Your task to perform on an android device: Search for vegetarian restaurants on Maps Image 0: 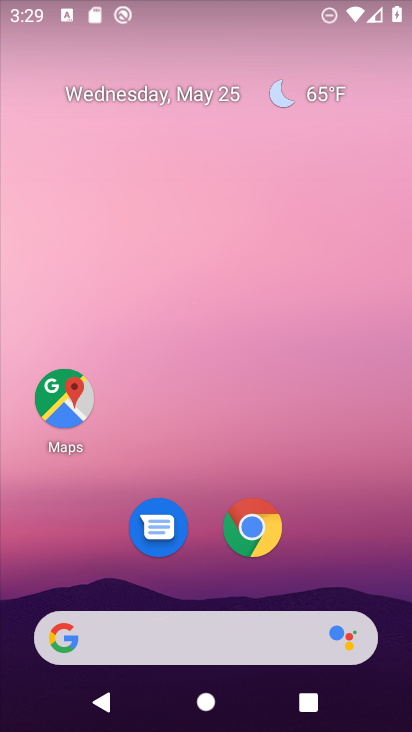
Step 0: drag from (344, 532) to (376, 10)
Your task to perform on an android device: Search for vegetarian restaurants on Maps Image 1: 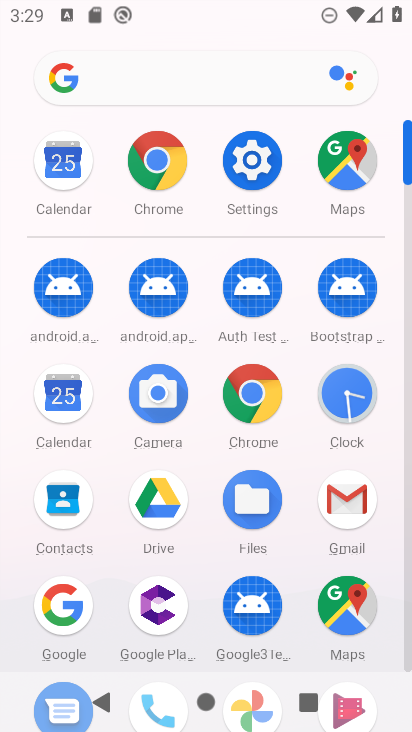
Step 1: click (367, 591)
Your task to perform on an android device: Search for vegetarian restaurants on Maps Image 2: 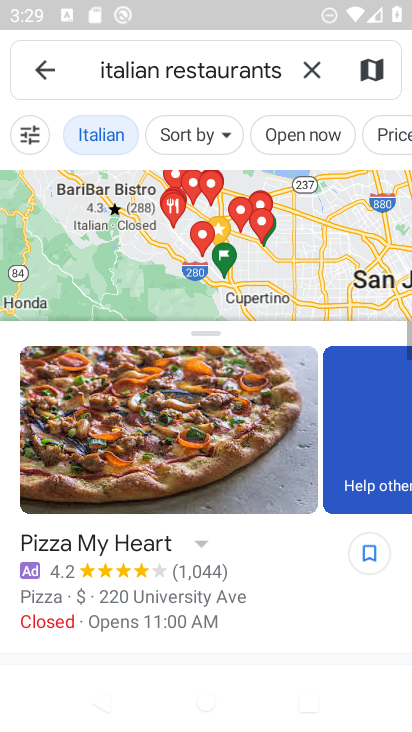
Step 2: click (312, 67)
Your task to perform on an android device: Search for vegetarian restaurants on Maps Image 3: 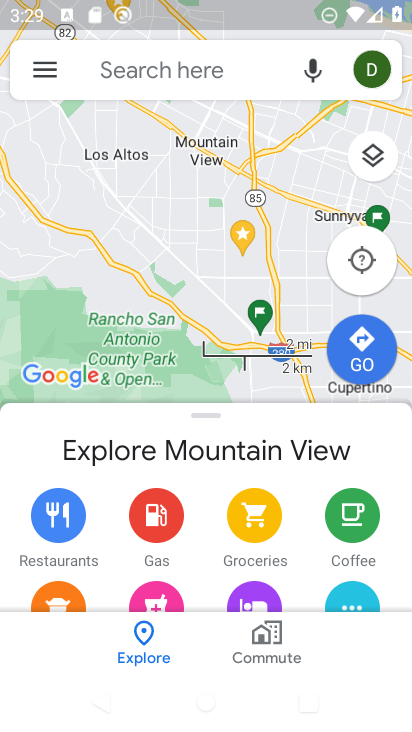
Step 3: click (264, 95)
Your task to perform on an android device: Search for vegetarian restaurants on Maps Image 4: 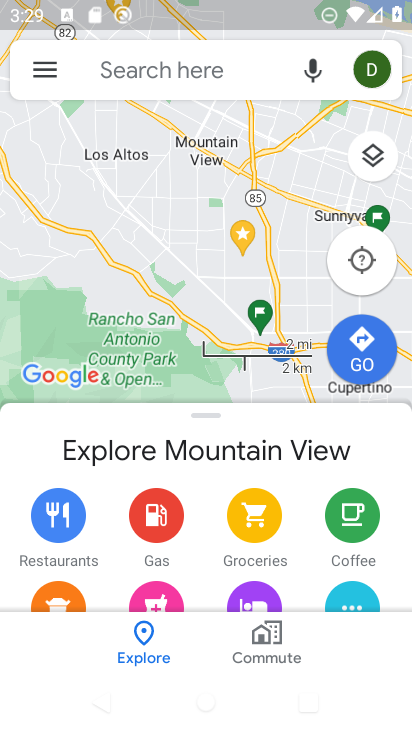
Step 4: click (264, 94)
Your task to perform on an android device: Search for vegetarian restaurants on Maps Image 5: 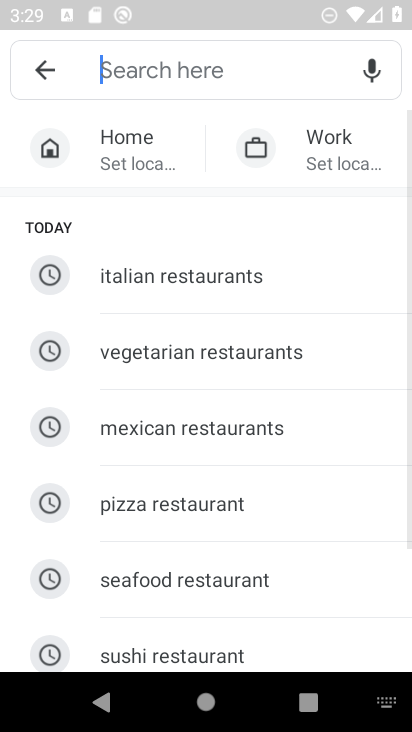
Step 5: click (220, 341)
Your task to perform on an android device: Search for vegetarian restaurants on Maps Image 6: 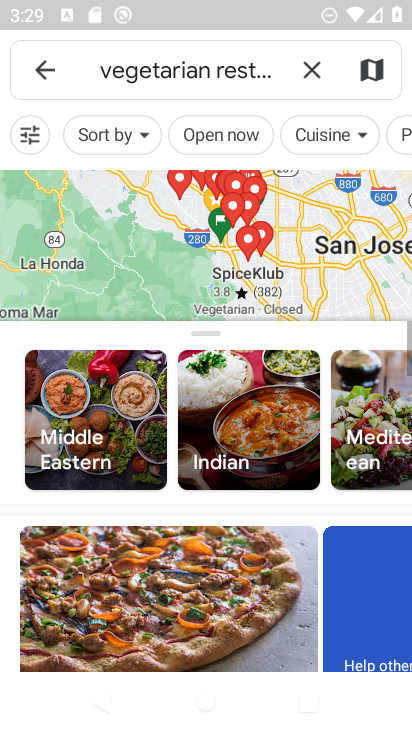
Step 6: task complete